Your task to perform on an android device: Open Google Image 0: 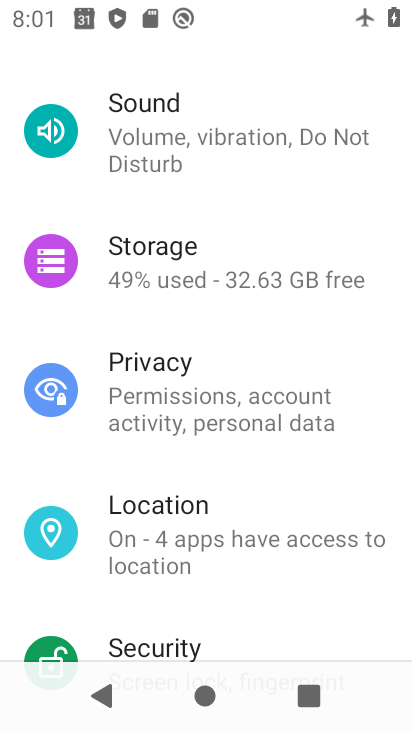
Step 0: press home button
Your task to perform on an android device: Open Google Image 1: 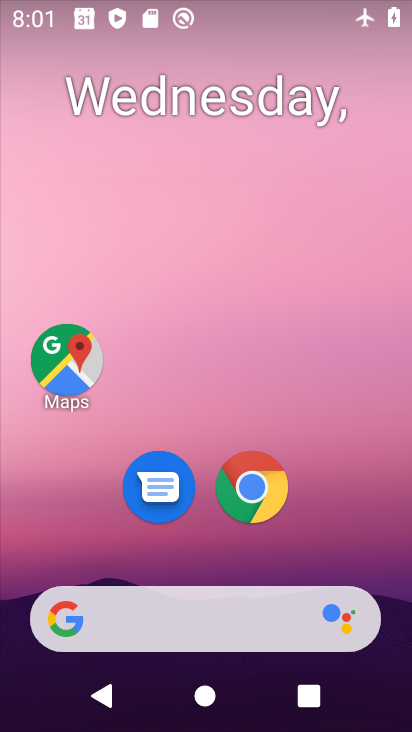
Step 1: drag from (373, 576) to (351, 8)
Your task to perform on an android device: Open Google Image 2: 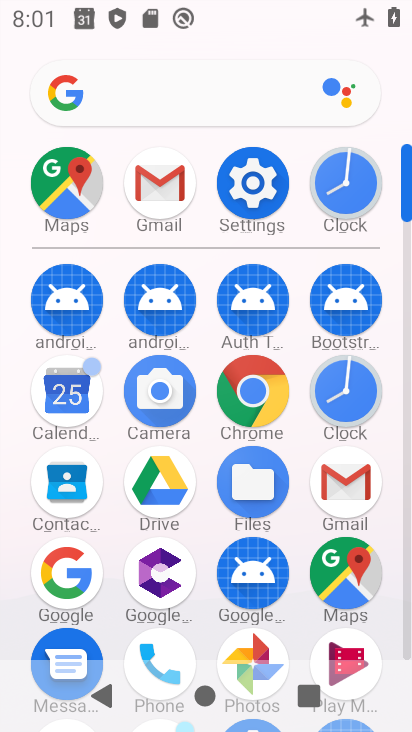
Step 2: click (64, 578)
Your task to perform on an android device: Open Google Image 3: 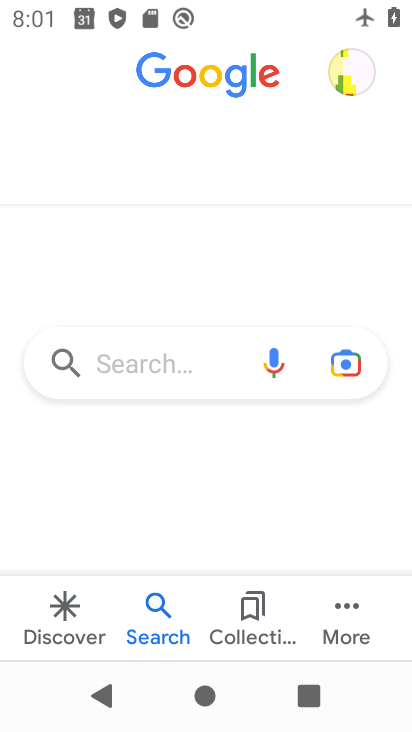
Step 3: task complete